Your task to perform on an android device: find which apps use the phone's location Image 0: 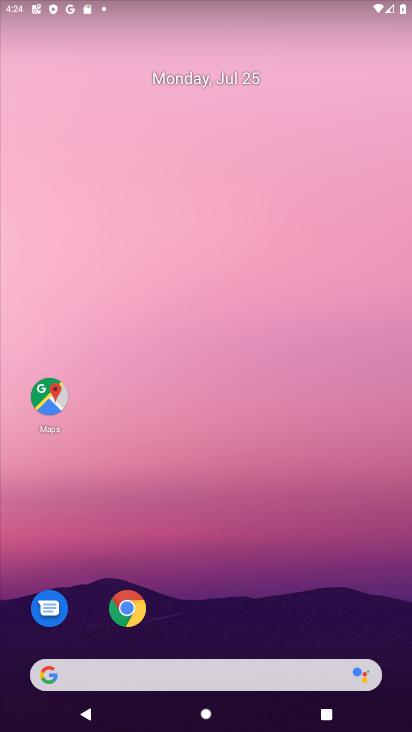
Step 0: press home button
Your task to perform on an android device: find which apps use the phone's location Image 1: 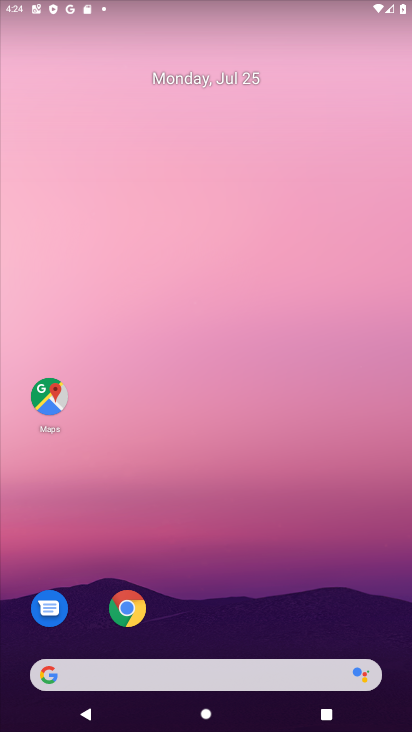
Step 1: drag from (211, 635) to (205, 14)
Your task to perform on an android device: find which apps use the phone's location Image 2: 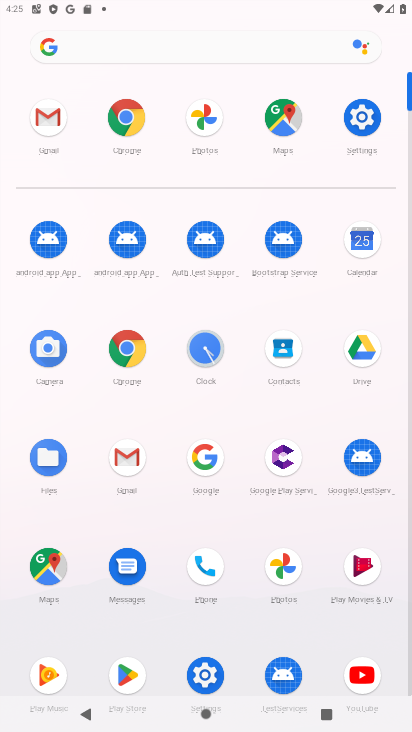
Step 2: click (356, 109)
Your task to perform on an android device: find which apps use the phone's location Image 3: 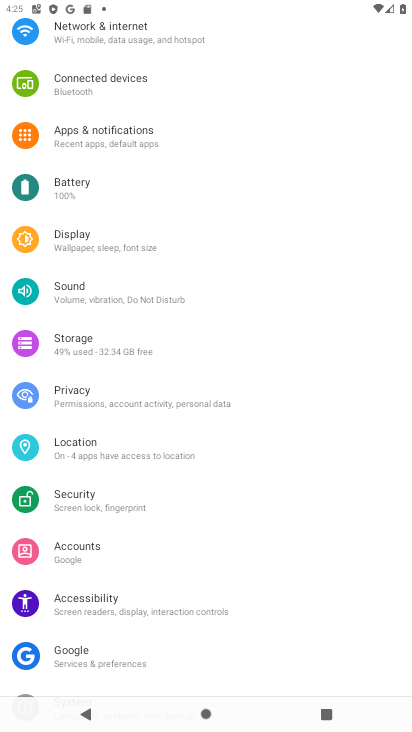
Step 3: click (99, 440)
Your task to perform on an android device: find which apps use the phone's location Image 4: 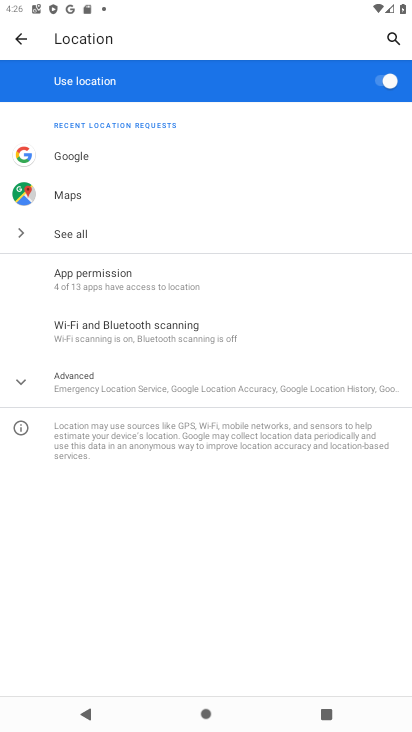
Step 4: click (21, 374)
Your task to perform on an android device: find which apps use the phone's location Image 5: 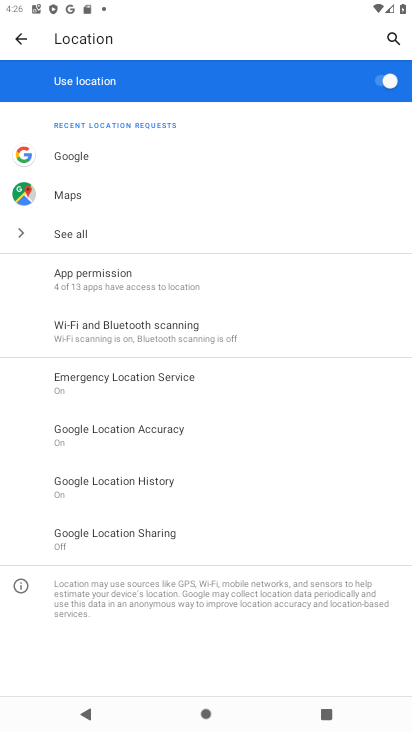
Step 5: click (112, 269)
Your task to perform on an android device: find which apps use the phone's location Image 6: 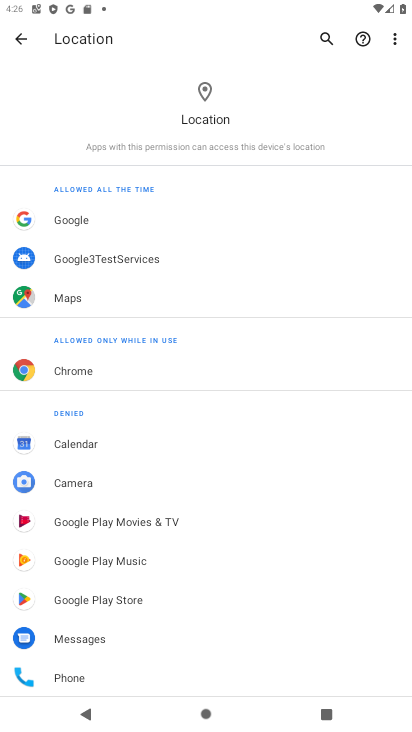
Step 6: task complete